Your task to perform on an android device: turn on wifi Image 0: 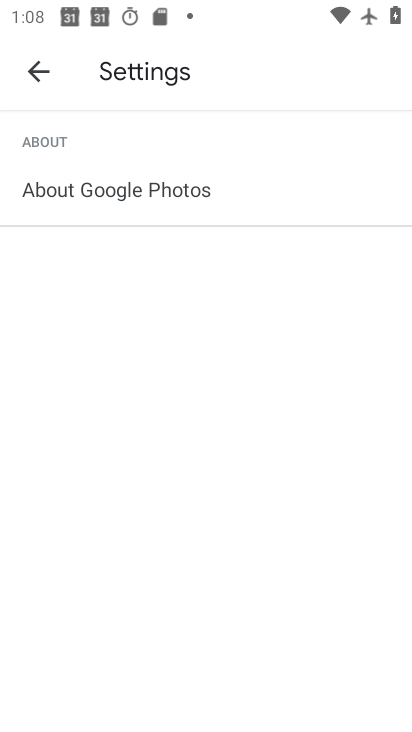
Step 0: press home button
Your task to perform on an android device: turn on wifi Image 1: 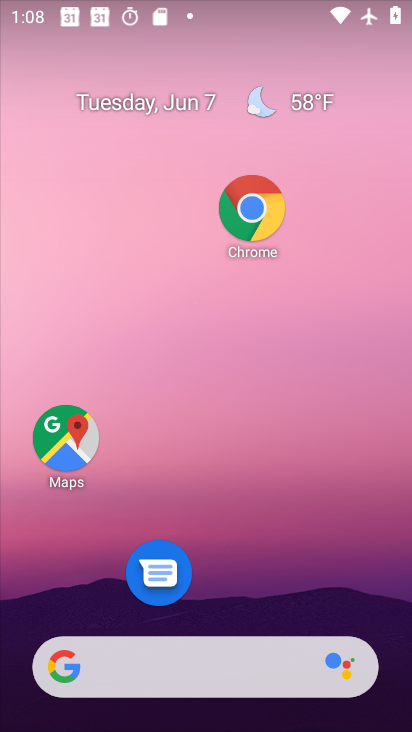
Step 1: drag from (211, 598) to (176, 132)
Your task to perform on an android device: turn on wifi Image 2: 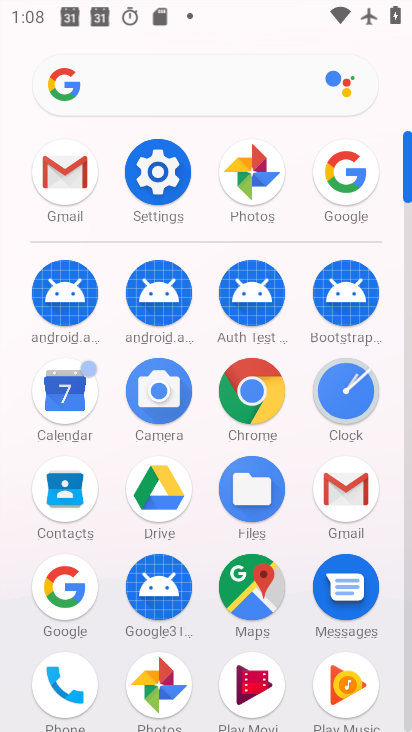
Step 2: click (171, 172)
Your task to perform on an android device: turn on wifi Image 3: 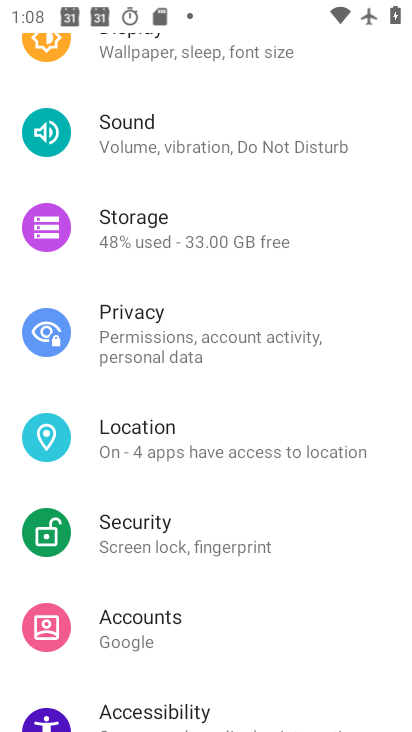
Step 3: click (236, 473)
Your task to perform on an android device: turn on wifi Image 4: 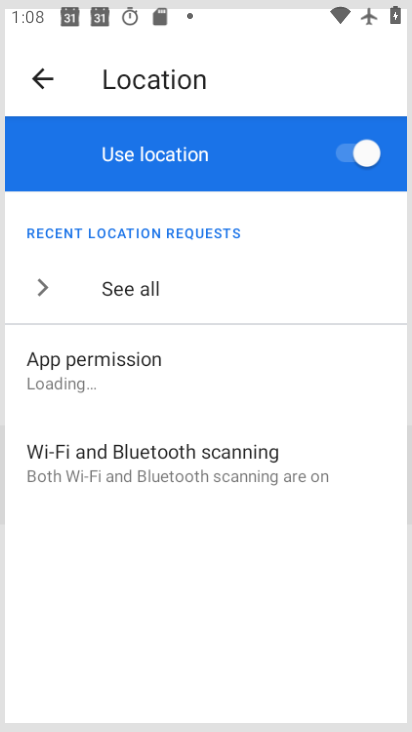
Step 4: drag from (211, 190) to (211, 443)
Your task to perform on an android device: turn on wifi Image 5: 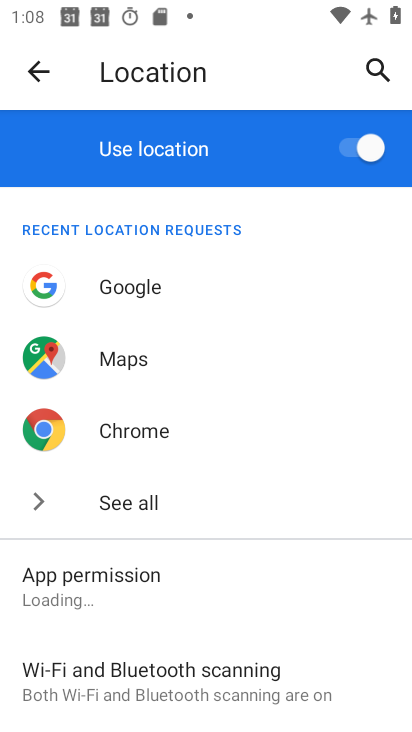
Step 5: click (44, 70)
Your task to perform on an android device: turn on wifi Image 6: 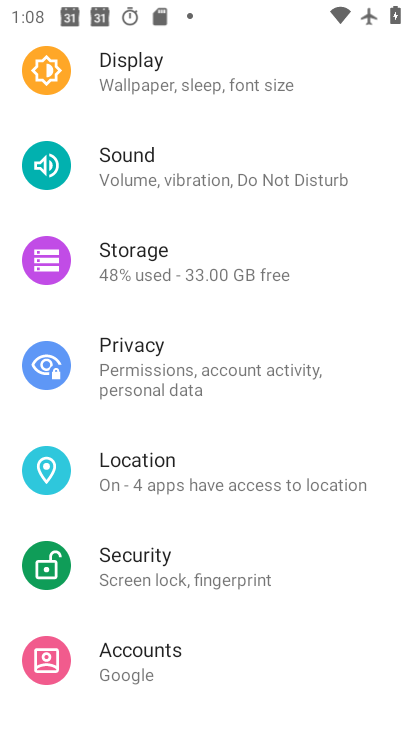
Step 6: drag from (154, 230) to (154, 510)
Your task to perform on an android device: turn on wifi Image 7: 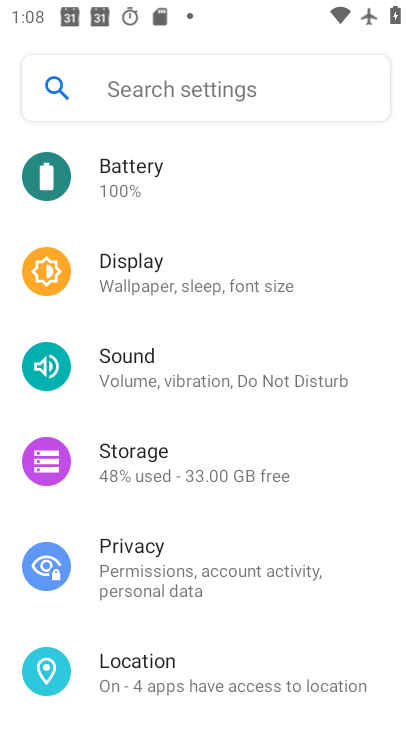
Step 7: drag from (163, 192) to (163, 481)
Your task to perform on an android device: turn on wifi Image 8: 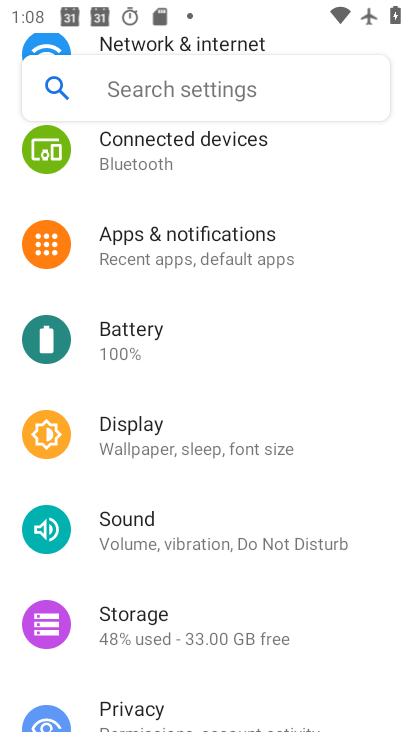
Step 8: drag from (182, 257) to (220, 497)
Your task to perform on an android device: turn on wifi Image 9: 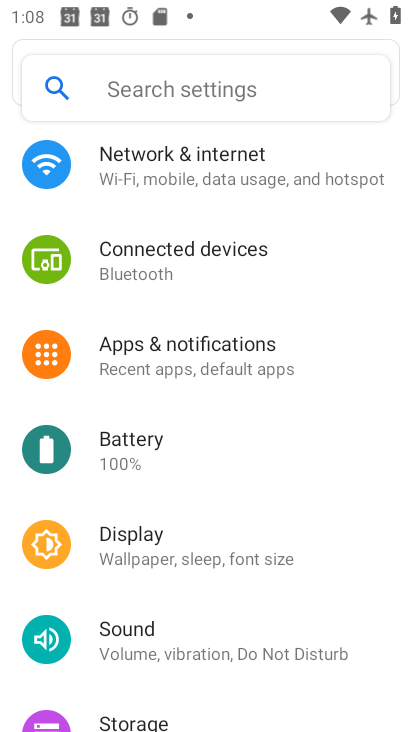
Step 9: drag from (176, 287) to (176, 356)
Your task to perform on an android device: turn on wifi Image 10: 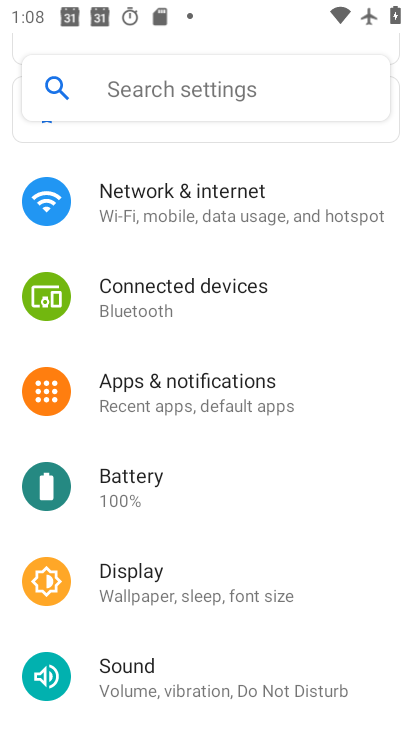
Step 10: click (170, 212)
Your task to perform on an android device: turn on wifi Image 11: 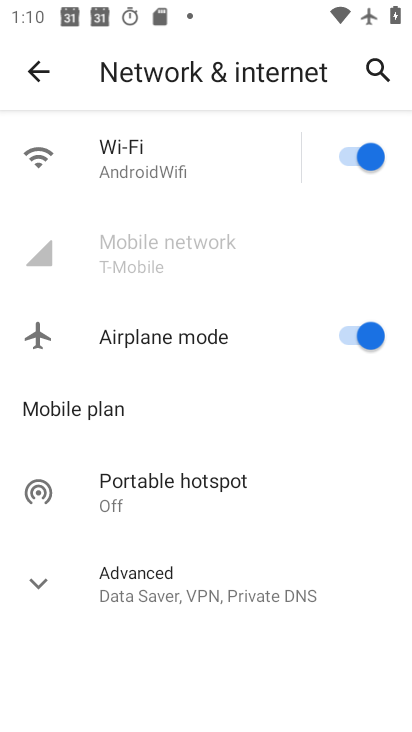
Step 11: task complete